Your task to perform on an android device: open app "Microsoft Excel" (install if not already installed) Image 0: 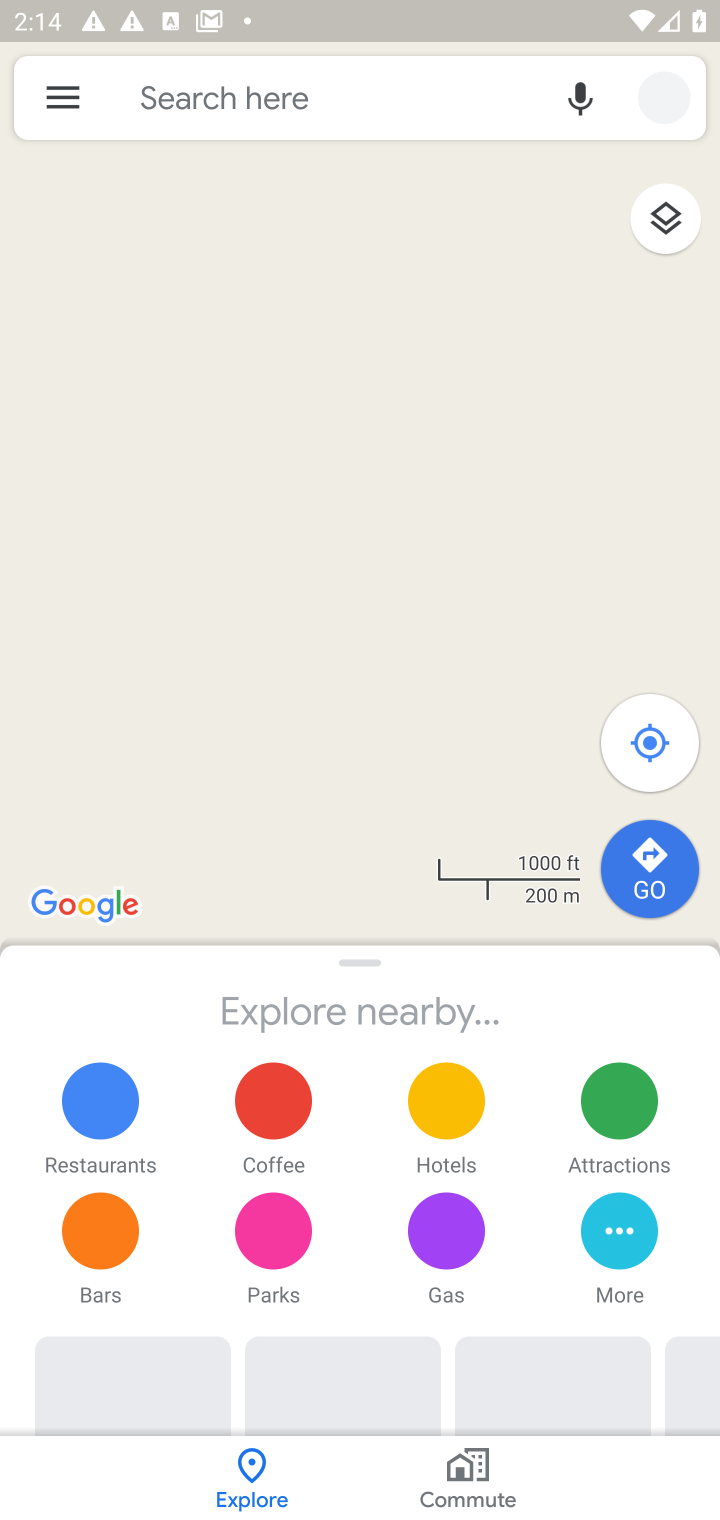
Step 0: press home button
Your task to perform on an android device: open app "Microsoft Excel" (install if not already installed) Image 1: 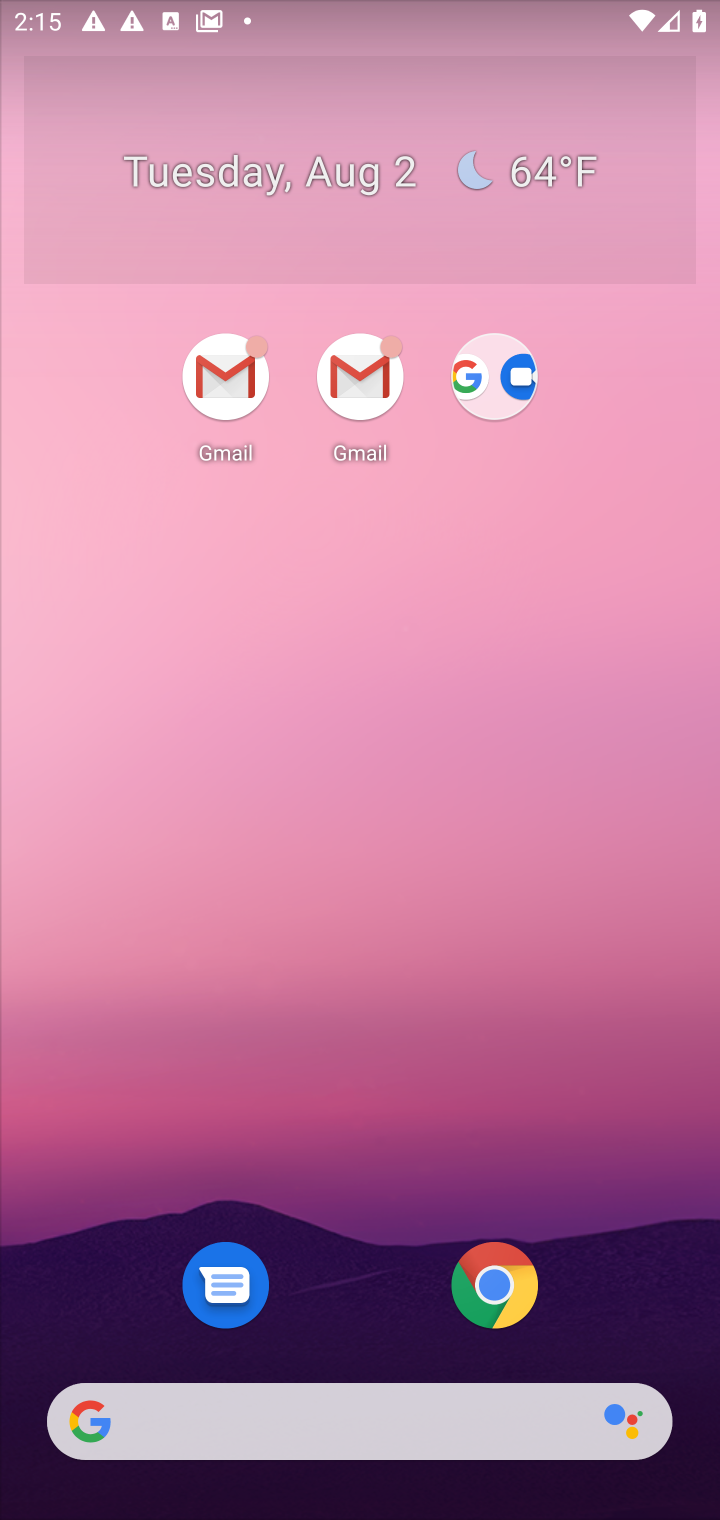
Step 1: drag from (590, 818) to (566, 69)
Your task to perform on an android device: open app "Microsoft Excel" (install if not already installed) Image 2: 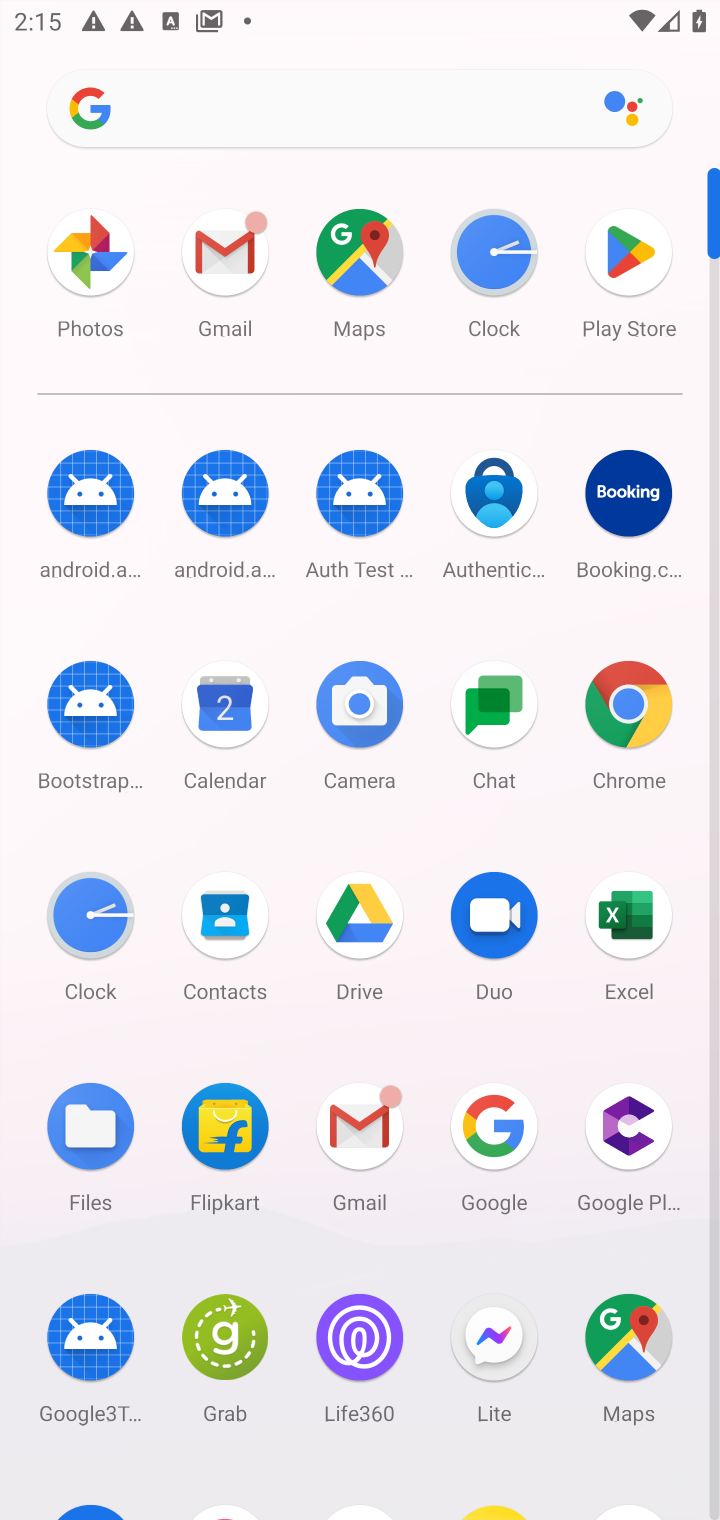
Step 2: drag from (548, 1246) to (612, 537)
Your task to perform on an android device: open app "Microsoft Excel" (install if not already installed) Image 3: 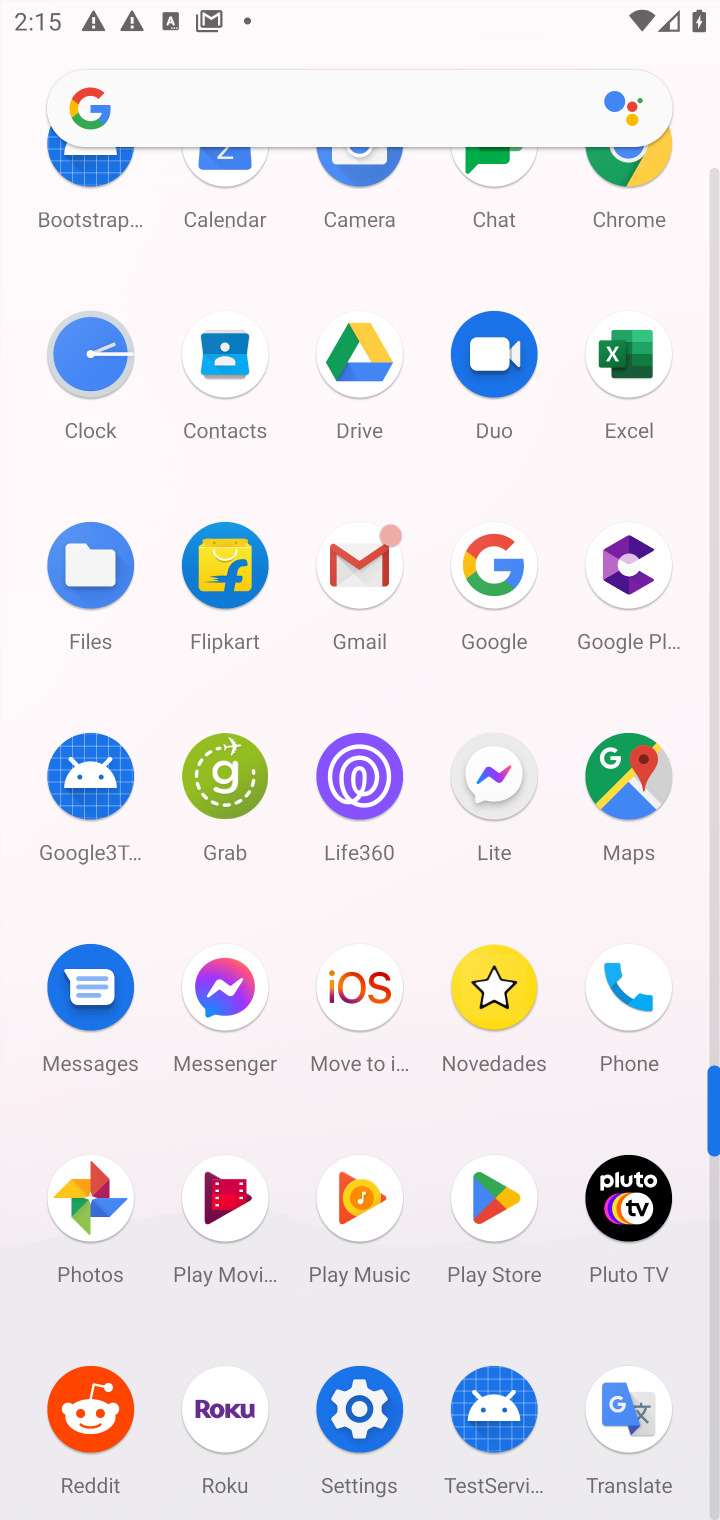
Step 3: click (484, 1206)
Your task to perform on an android device: open app "Microsoft Excel" (install if not already installed) Image 4: 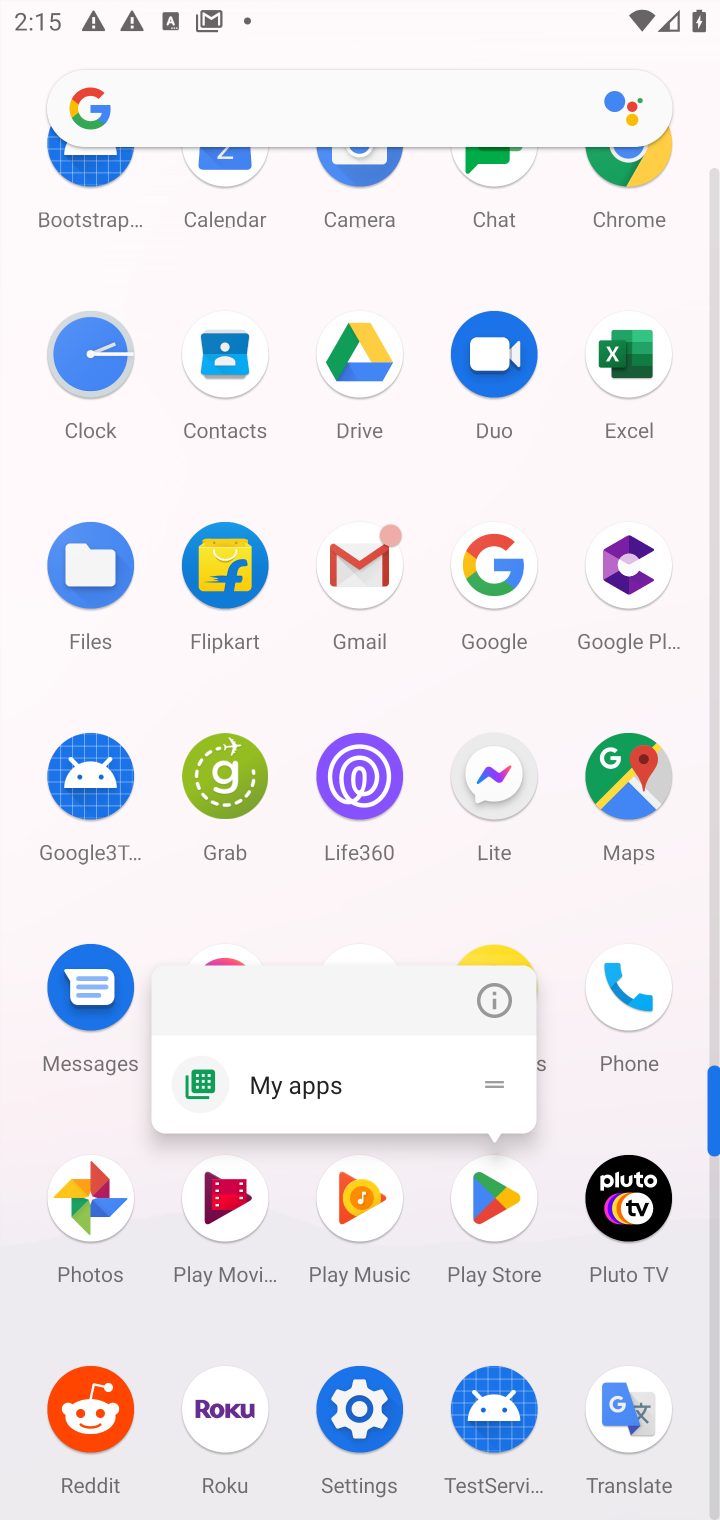
Step 4: click (484, 1206)
Your task to perform on an android device: open app "Microsoft Excel" (install if not already installed) Image 5: 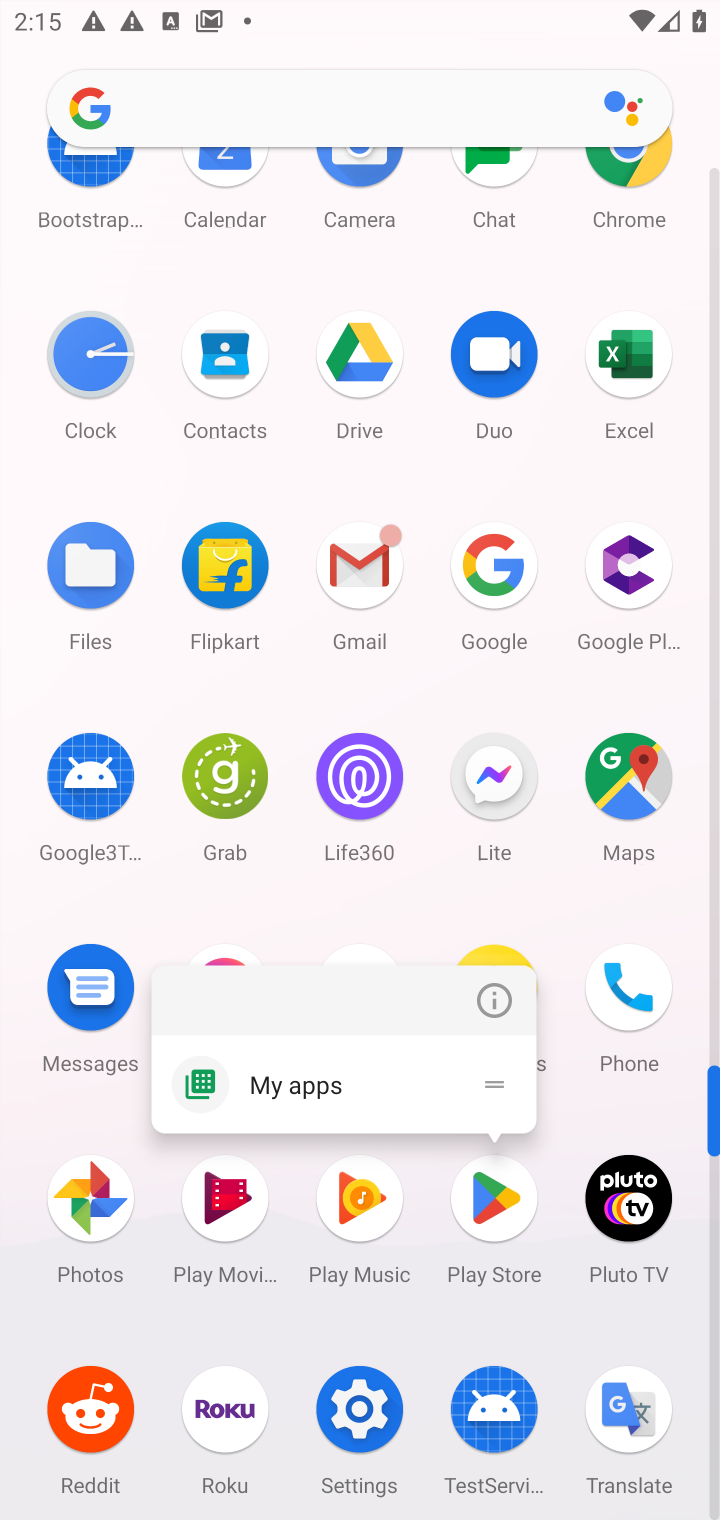
Step 5: click (497, 1193)
Your task to perform on an android device: open app "Microsoft Excel" (install if not already installed) Image 6: 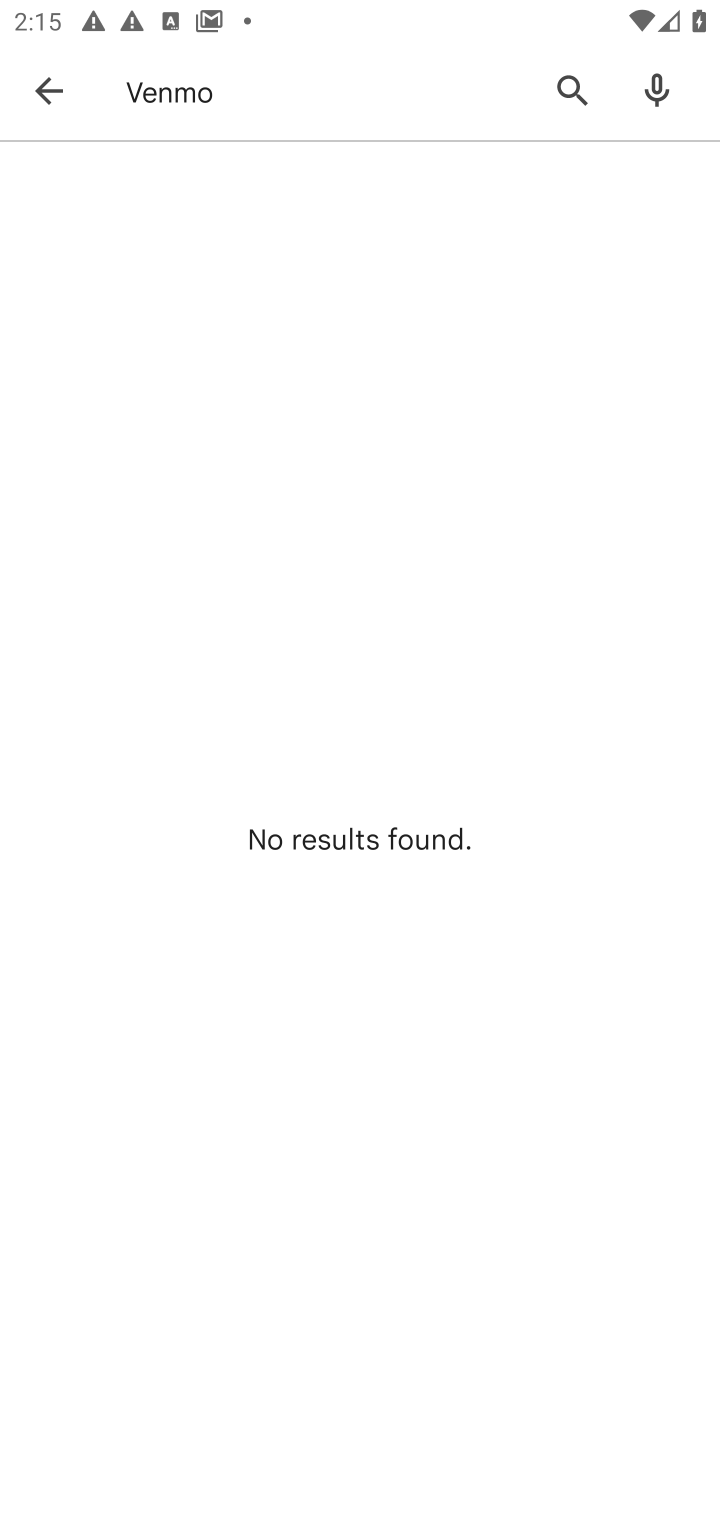
Step 6: click (394, 109)
Your task to perform on an android device: open app "Microsoft Excel" (install if not already installed) Image 7: 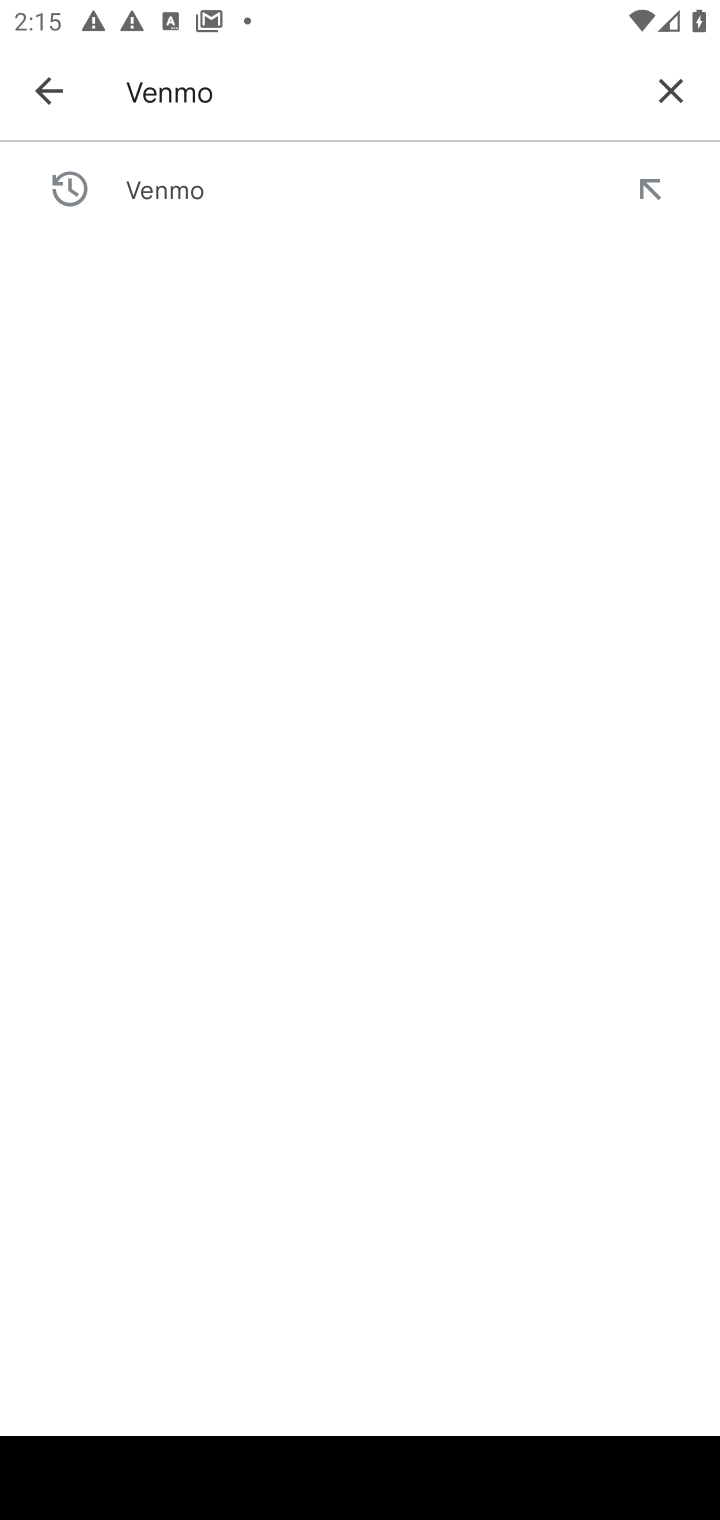
Step 7: click (648, 90)
Your task to perform on an android device: open app "Microsoft Excel" (install if not already installed) Image 8: 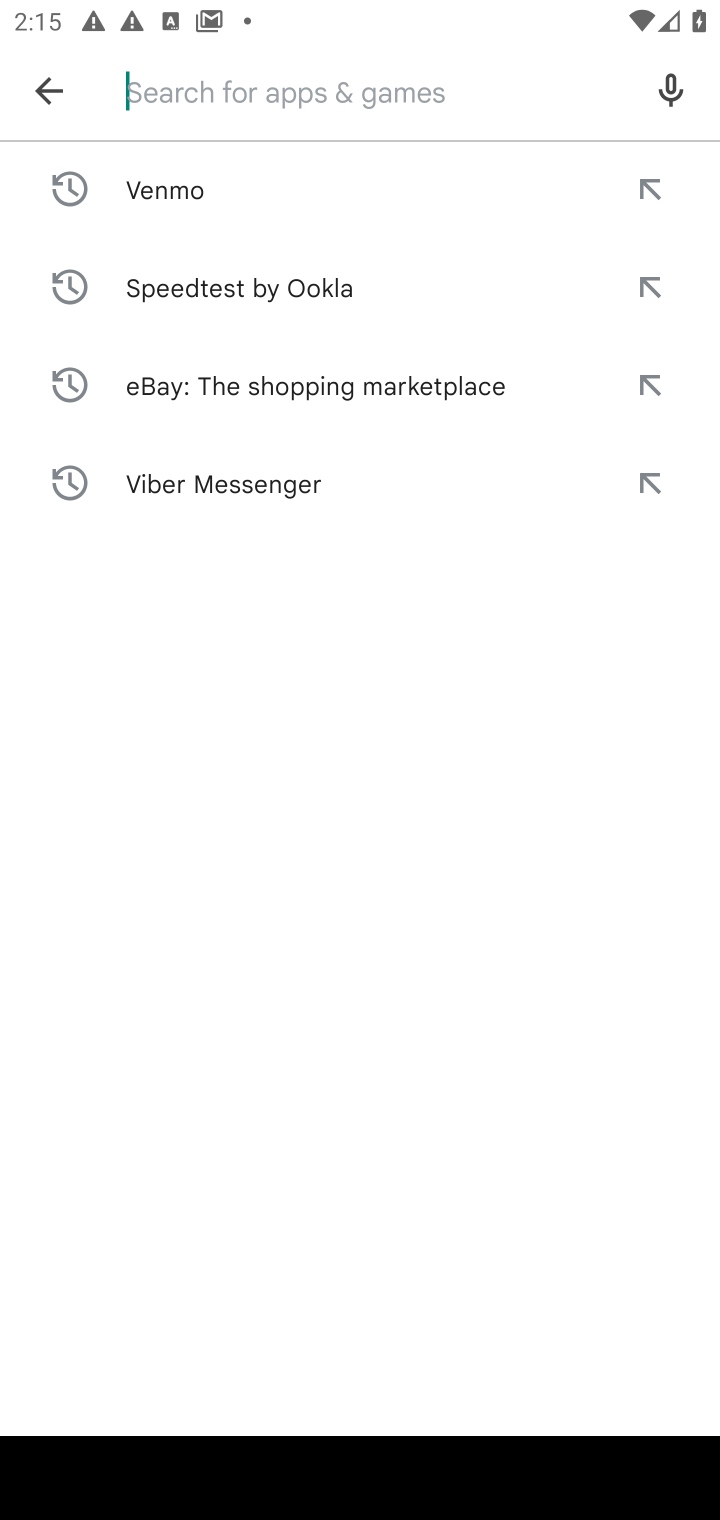
Step 8: type "Microsoft Excel"
Your task to perform on an android device: open app "Microsoft Excel" (install if not already installed) Image 9: 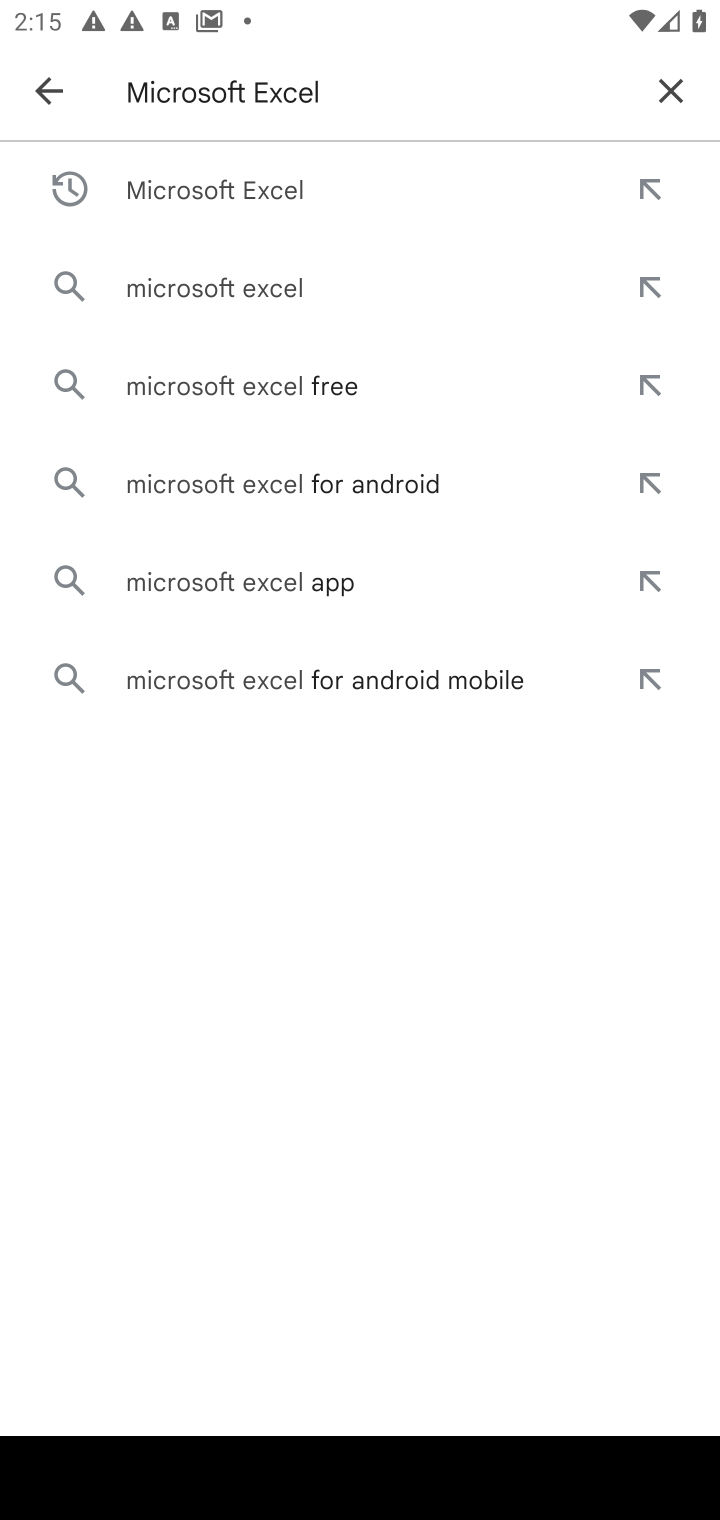
Step 9: press enter
Your task to perform on an android device: open app "Microsoft Excel" (install if not already installed) Image 10: 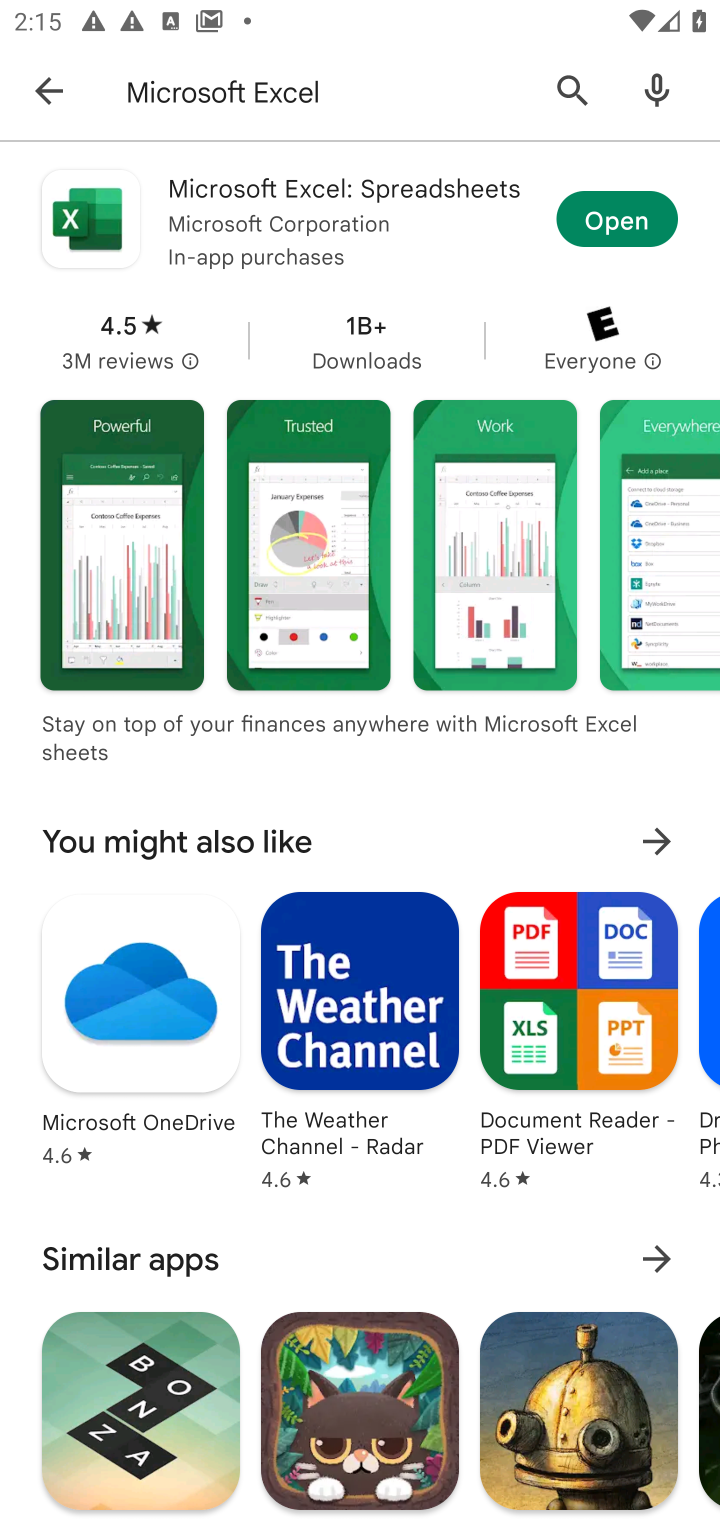
Step 10: click (620, 210)
Your task to perform on an android device: open app "Microsoft Excel" (install if not already installed) Image 11: 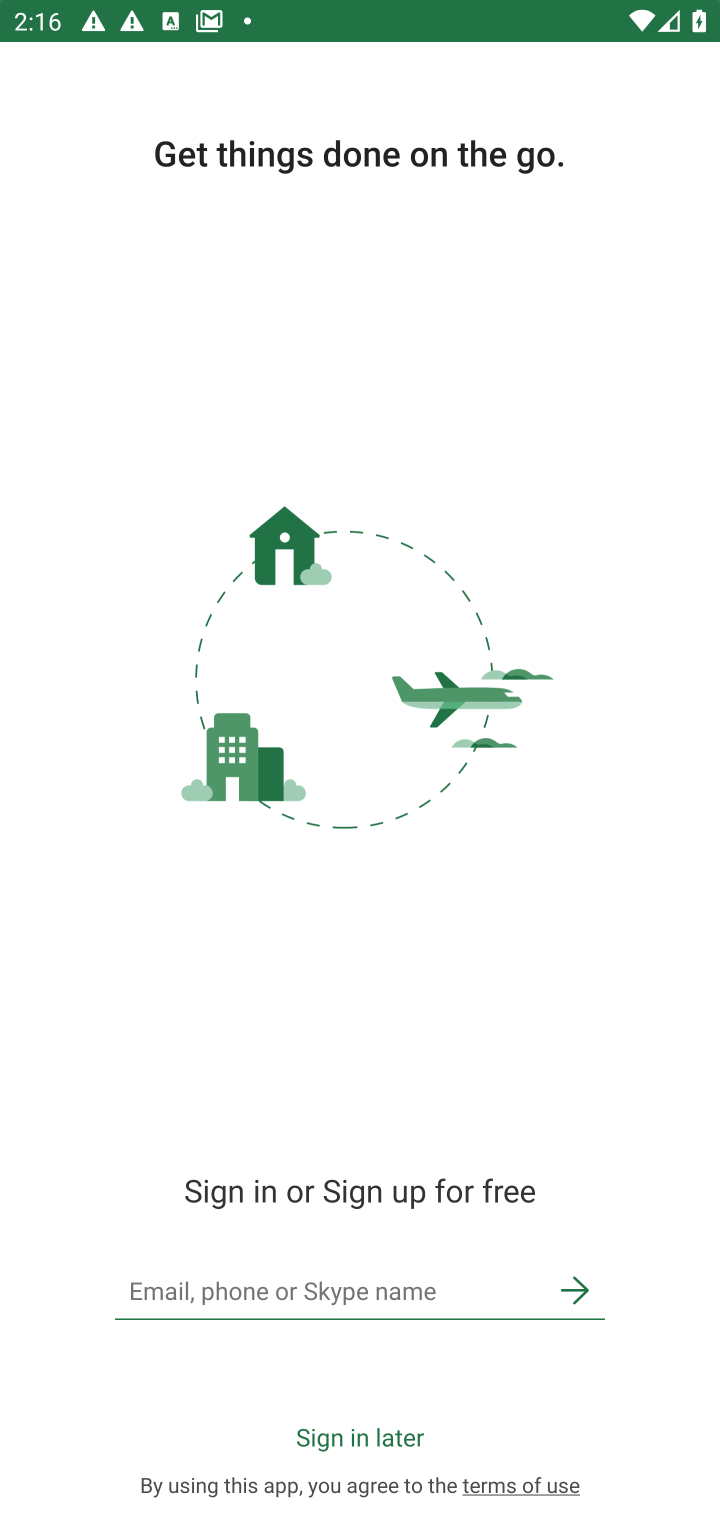
Step 11: task complete